Your task to perform on an android device: Open location settings Image 0: 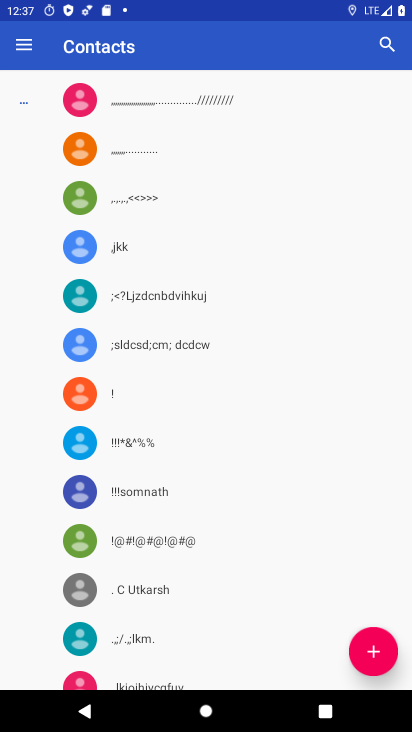
Step 0: press home button
Your task to perform on an android device: Open location settings Image 1: 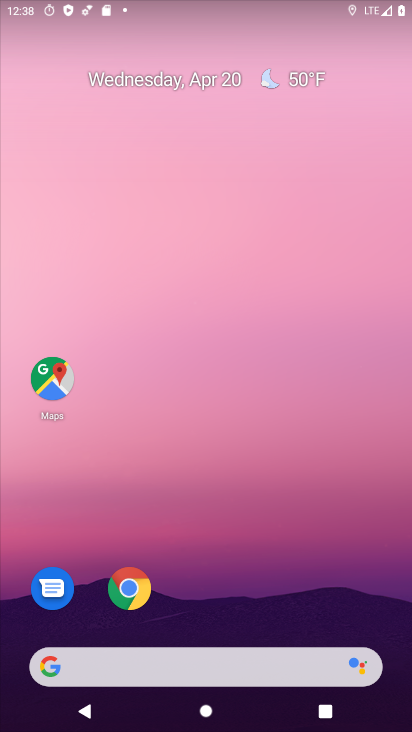
Step 1: drag from (208, 635) to (166, 68)
Your task to perform on an android device: Open location settings Image 2: 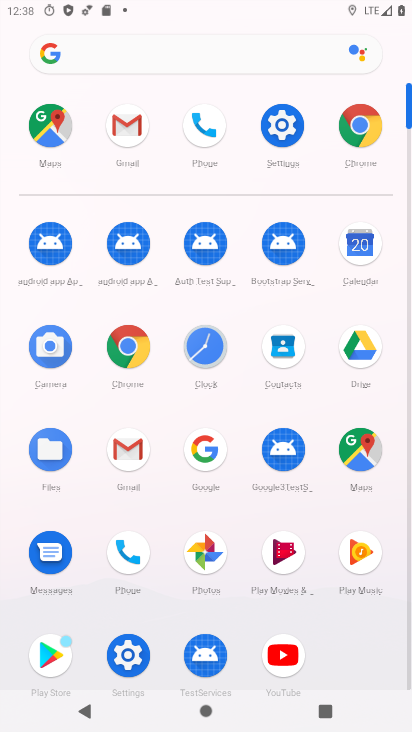
Step 2: click (275, 126)
Your task to perform on an android device: Open location settings Image 3: 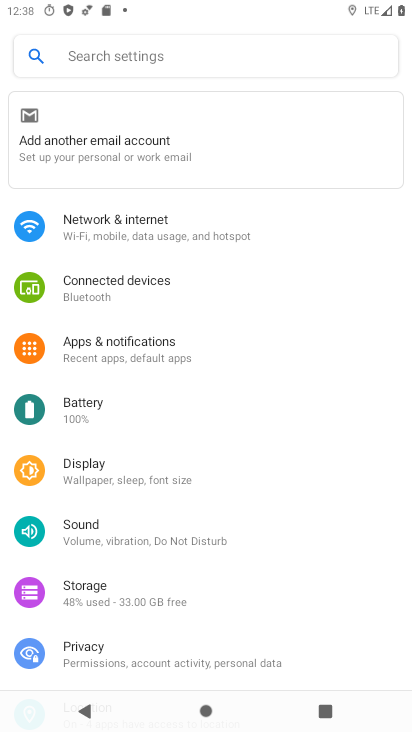
Step 3: drag from (120, 614) to (102, 274)
Your task to perform on an android device: Open location settings Image 4: 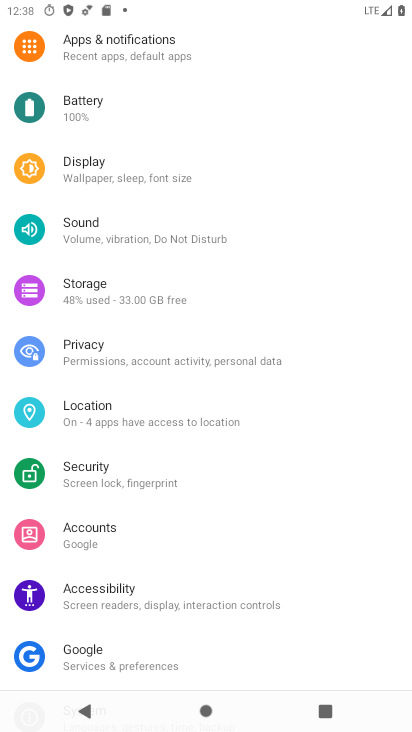
Step 4: click (91, 426)
Your task to perform on an android device: Open location settings Image 5: 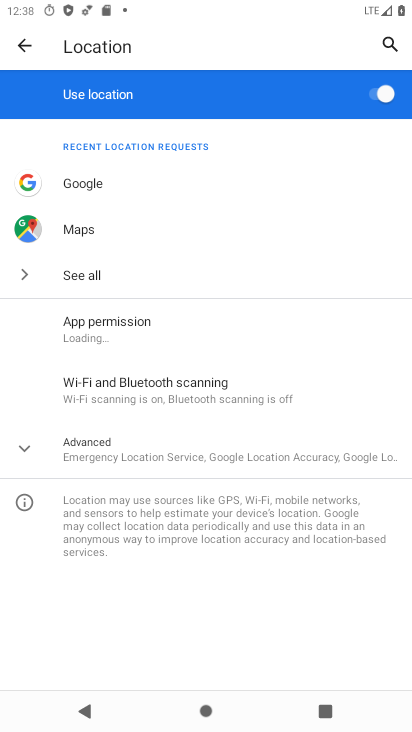
Step 5: click (120, 437)
Your task to perform on an android device: Open location settings Image 6: 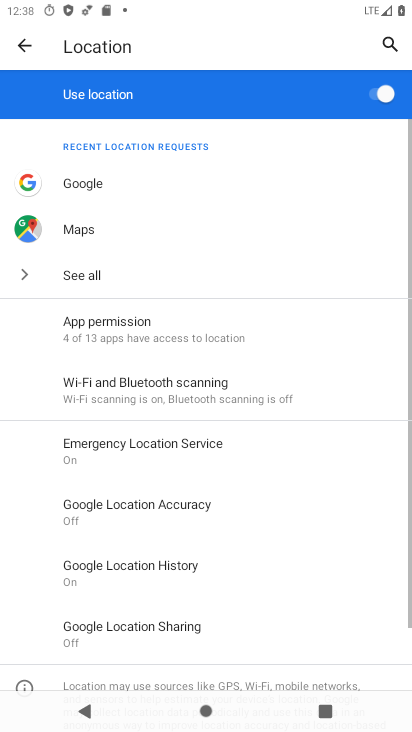
Step 6: task complete